Your task to perform on an android device: add a contact Image 0: 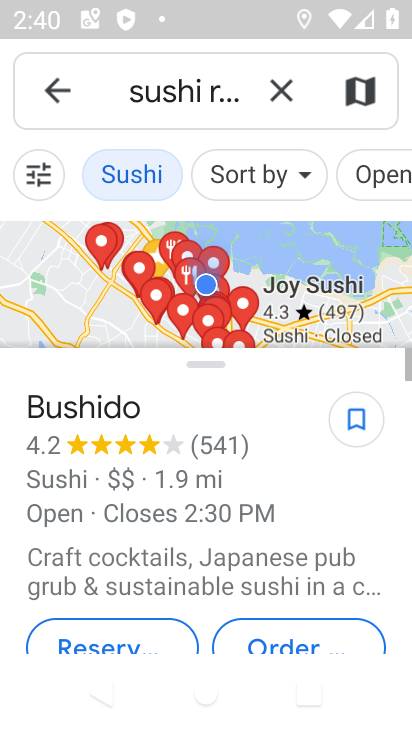
Step 0: press home button
Your task to perform on an android device: add a contact Image 1: 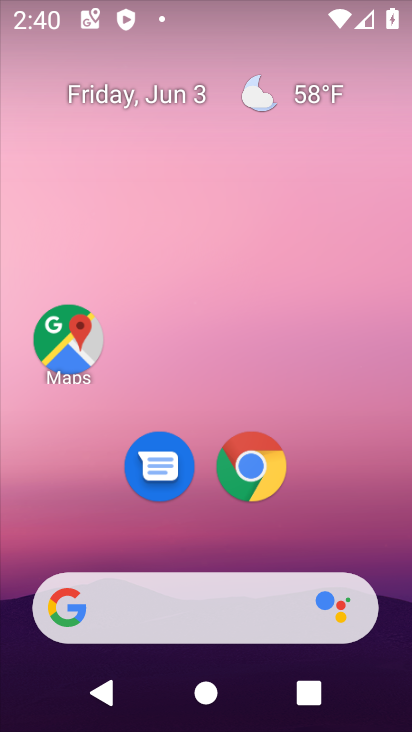
Step 1: drag from (306, 436) to (266, 127)
Your task to perform on an android device: add a contact Image 2: 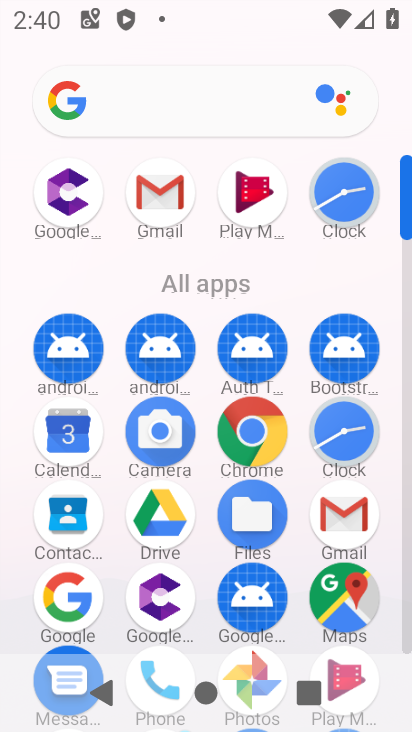
Step 2: click (85, 506)
Your task to perform on an android device: add a contact Image 3: 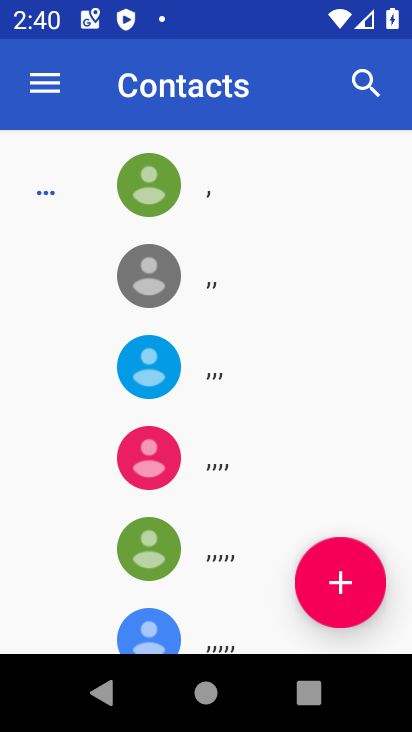
Step 3: click (346, 588)
Your task to perform on an android device: add a contact Image 4: 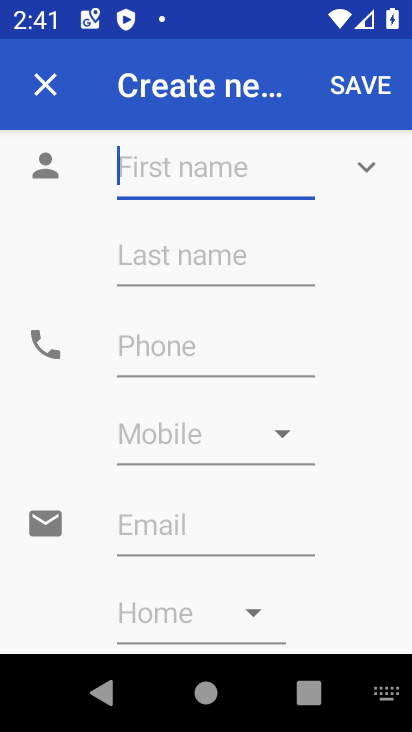
Step 4: type "shfhhf"
Your task to perform on an android device: add a contact Image 5: 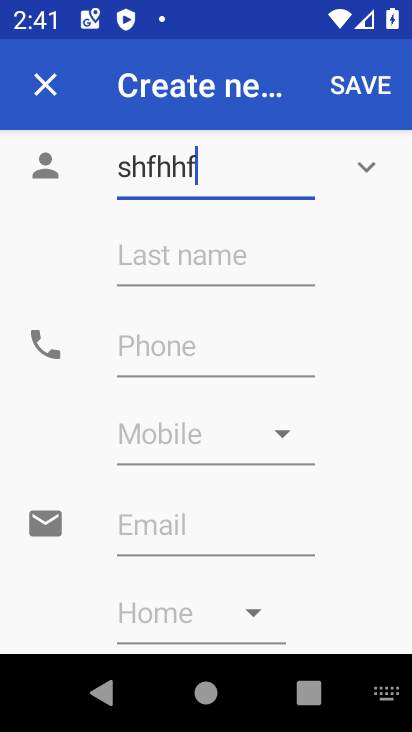
Step 5: click (244, 377)
Your task to perform on an android device: add a contact Image 6: 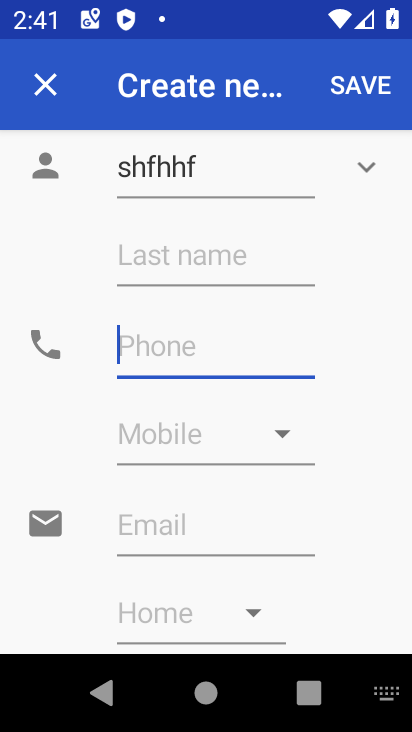
Step 6: type "5799900311"
Your task to perform on an android device: add a contact Image 7: 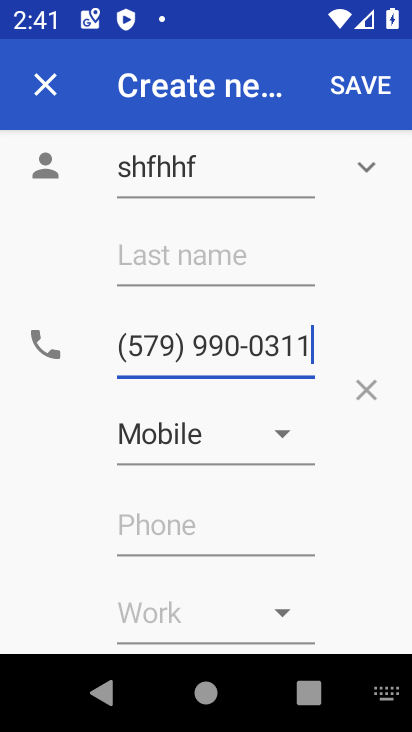
Step 7: click (368, 87)
Your task to perform on an android device: add a contact Image 8: 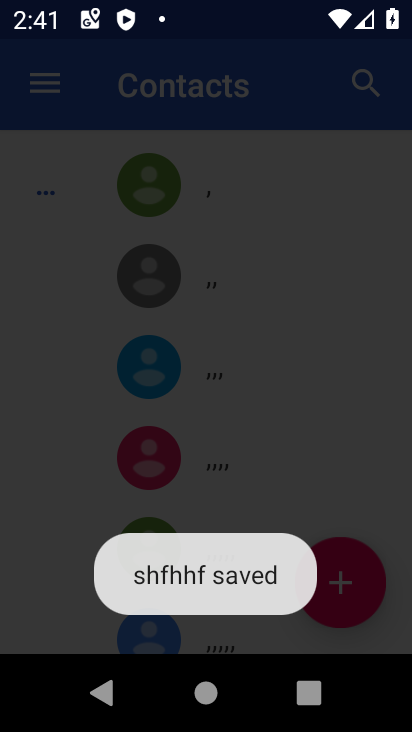
Step 8: click (368, 87)
Your task to perform on an android device: add a contact Image 9: 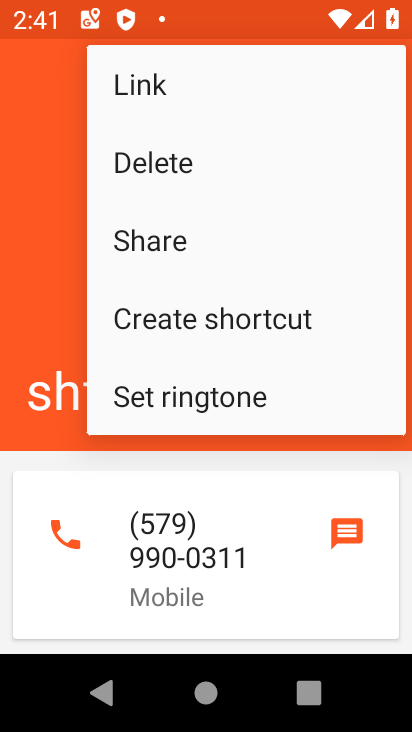
Step 9: task complete